Your task to perform on an android device: Open calendar and show me the second week of next month Image 0: 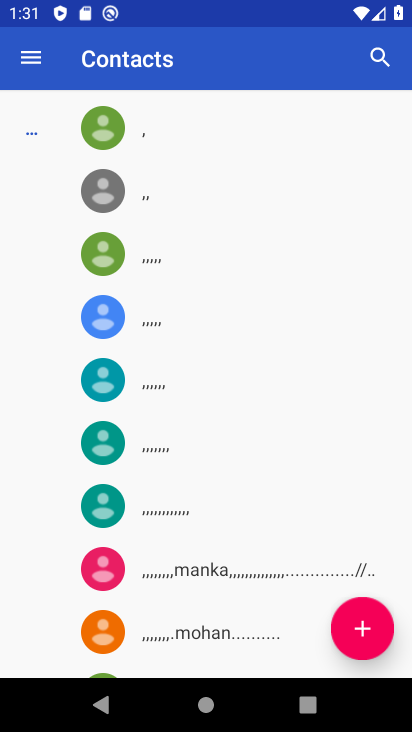
Step 0: press home button
Your task to perform on an android device: Open calendar and show me the second week of next month Image 1: 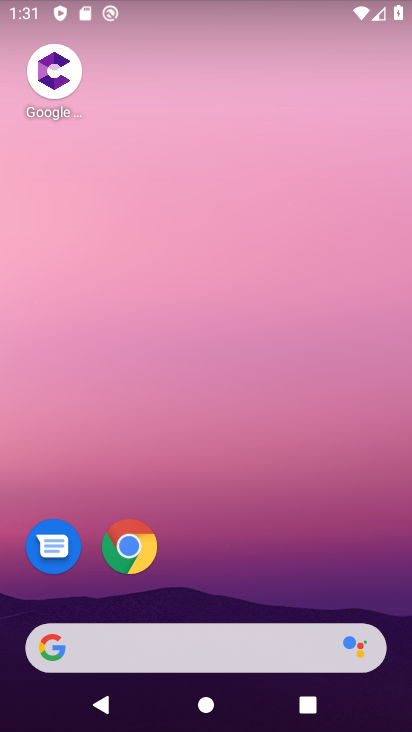
Step 1: drag from (176, 629) to (281, 147)
Your task to perform on an android device: Open calendar and show me the second week of next month Image 2: 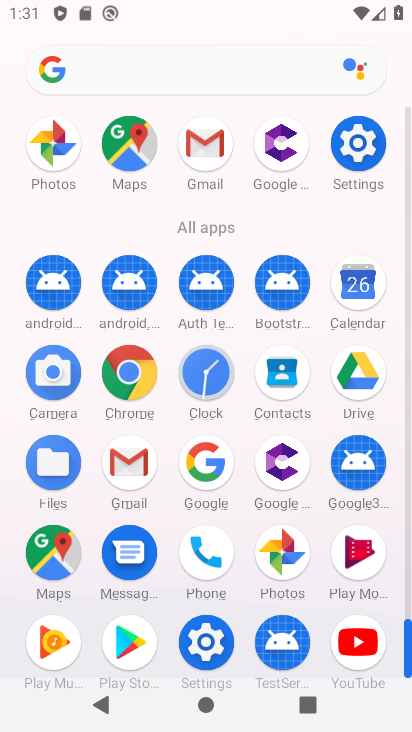
Step 2: click (353, 295)
Your task to perform on an android device: Open calendar and show me the second week of next month Image 3: 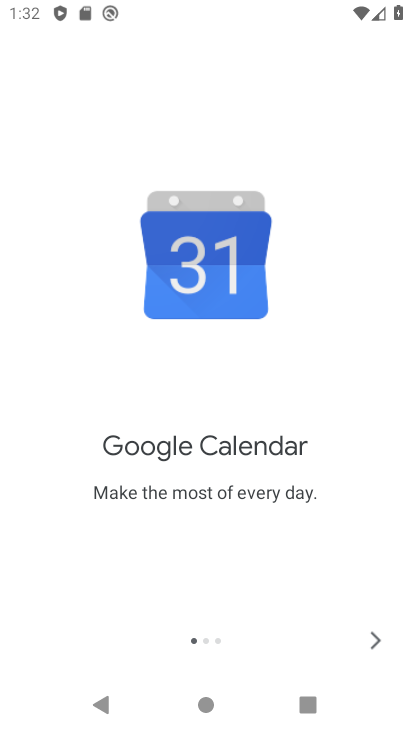
Step 3: click (387, 650)
Your task to perform on an android device: Open calendar and show me the second week of next month Image 4: 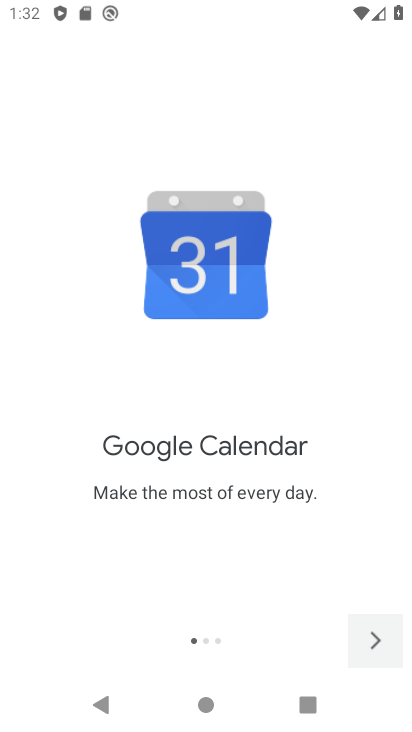
Step 4: click (387, 650)
Your task to perform on an android device: Open calendar and show me the second week of next month Image 5: 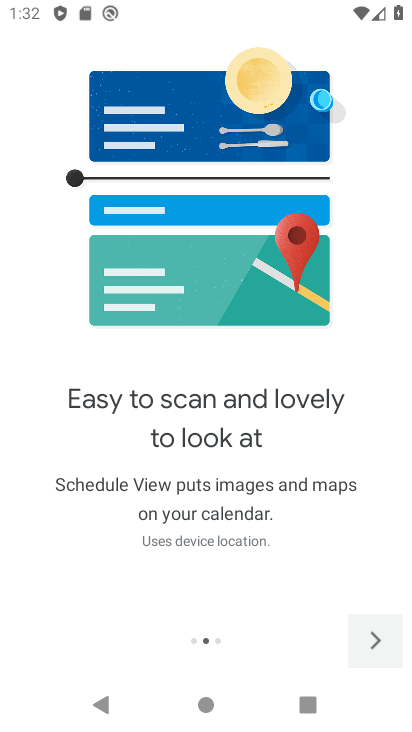
Step 5: click (387, 650)
Your task to perform on an android device: Open calendar and show me the second week of next month Image 6: 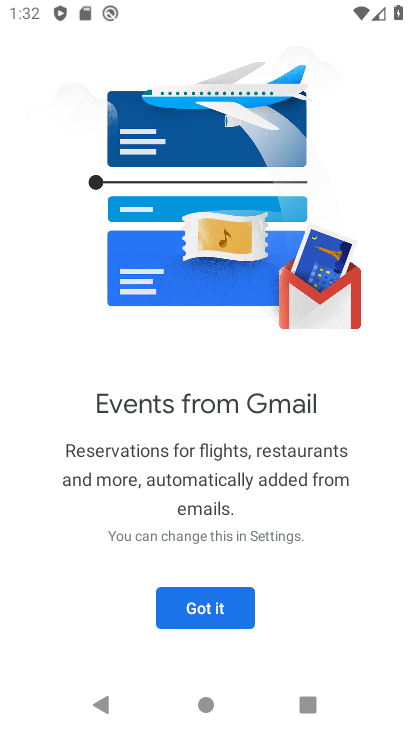
Step 6: click (387, 650)
Your task to perform on an android device: Open calendar and show me the second week of next month Image 7: 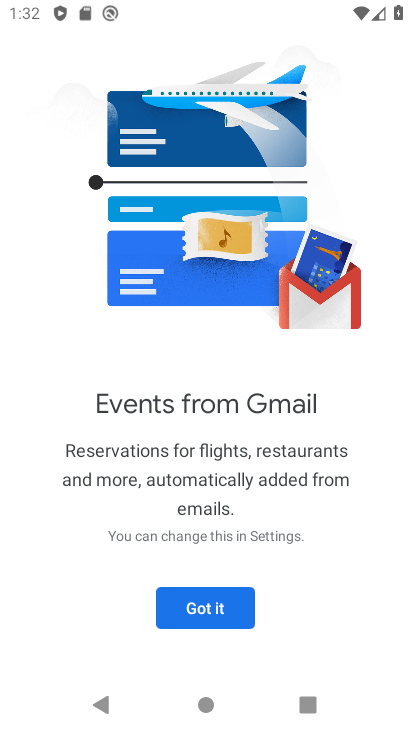
Step 7: click (213, 622)
Your task to perform on an android device: Open calendar and show me the second week of next month Image 8: 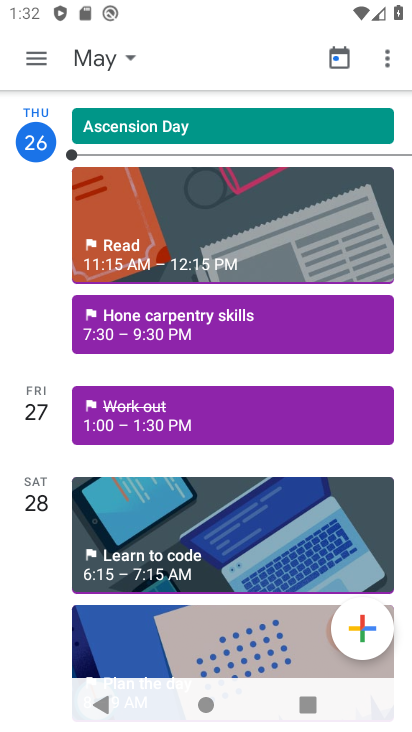
Step 8: click (124, 65)
Your task to perform on an android device: Open calendar and show me the second week of next month Image 9: 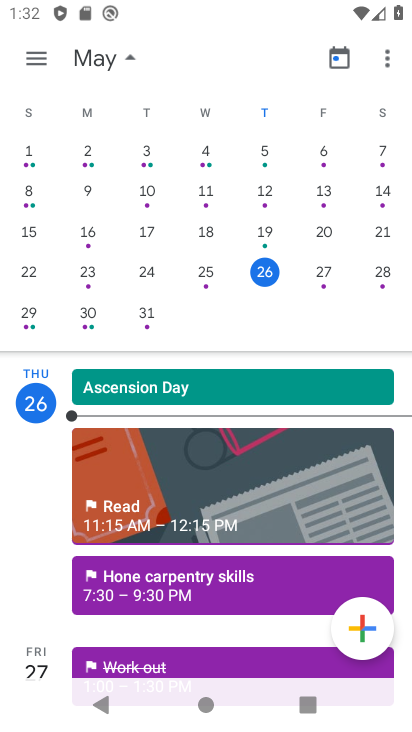
Step 9: drag from (363, 288) to (0, 269)
Your task to perform on an android device: Open calendar and show me the second week of next month Image 10: 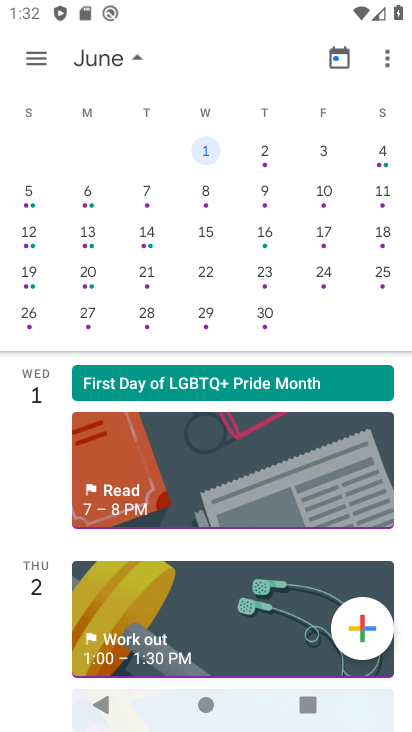
Step 10: click (31, 236)
Your task to perform on an android device: Open calendar and show me the second week of next month Image 11: 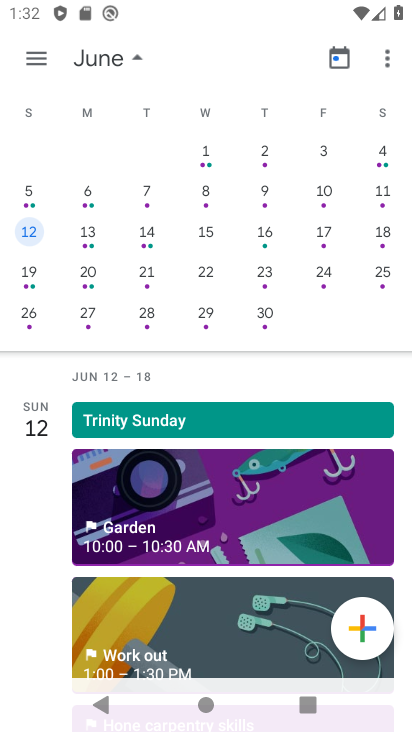
Step 11: click (36, 66)
Your task to perform on an android device: Open calendar and show me the second week of next month Image 12: 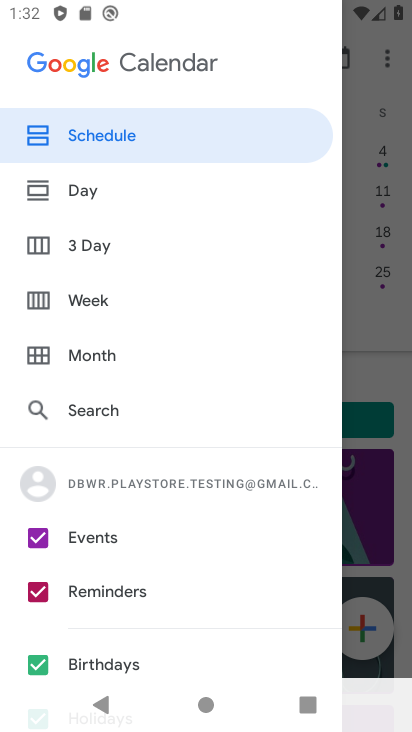
Step 12: click (137, 295)
Your task to perform on an android device: Open calendar and show me the second week of next month Image 13: 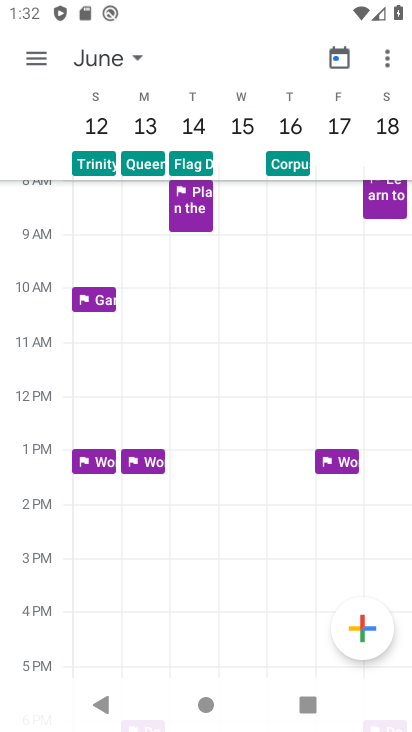
Step 13: task complete